Your task to perform on an android device: Open the stopwatch Image 0: 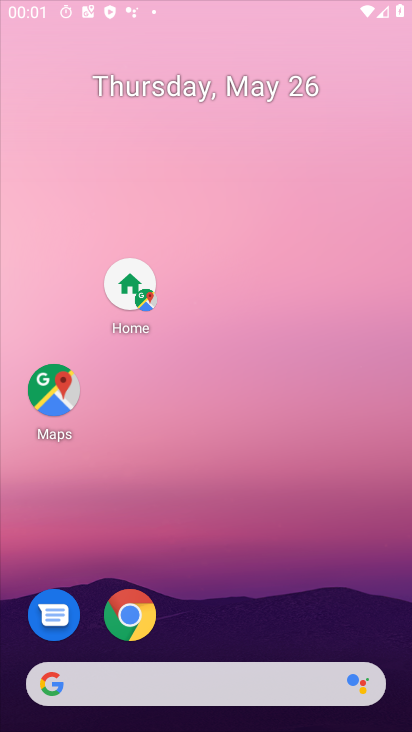
Step 0: press home button
Your task to perform on an android device: Open the stopwatch Image 1: 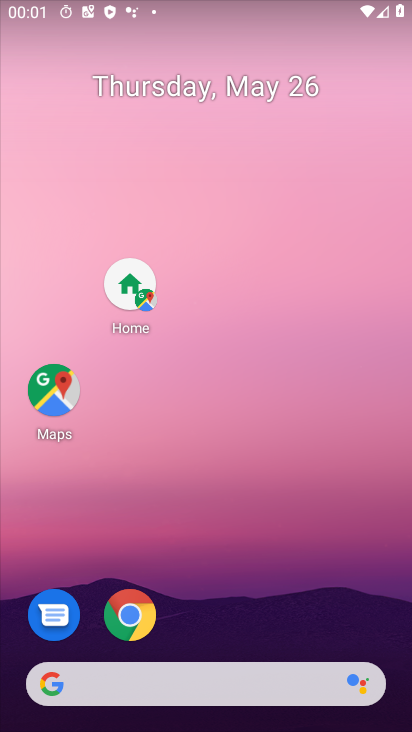
Step 1: drag from (293, 627) to (248, 149)
Your task to perform on an android device: Open the stopwatch Image 2: 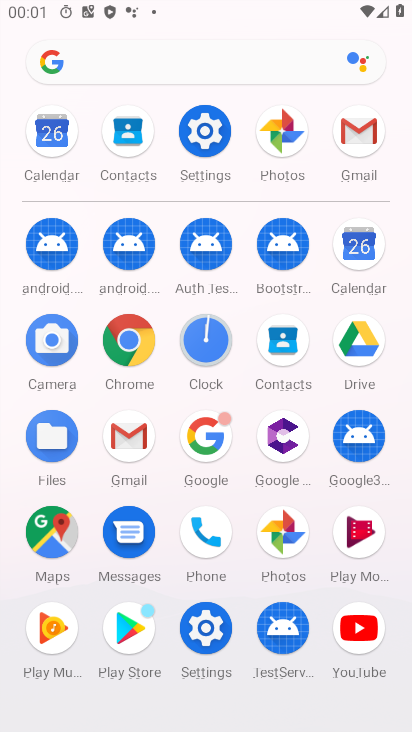
Step 2: click (211, 352)
Your task to perform on an android device: Open the stopwatch Image 3: 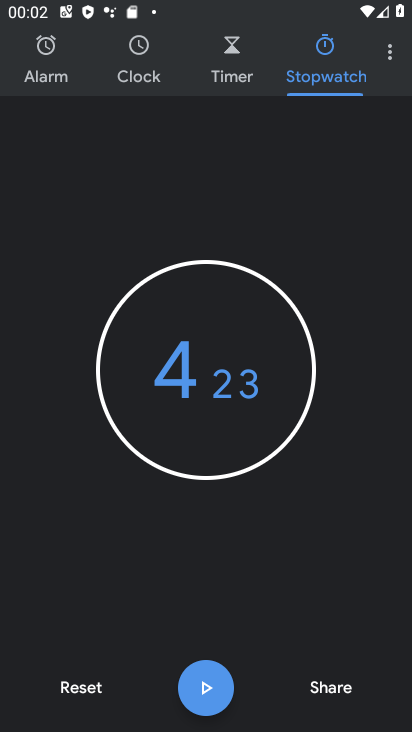
Step 3: click (324, 49)
Your task to perform on an android device: Open the stopwatch Image 4: 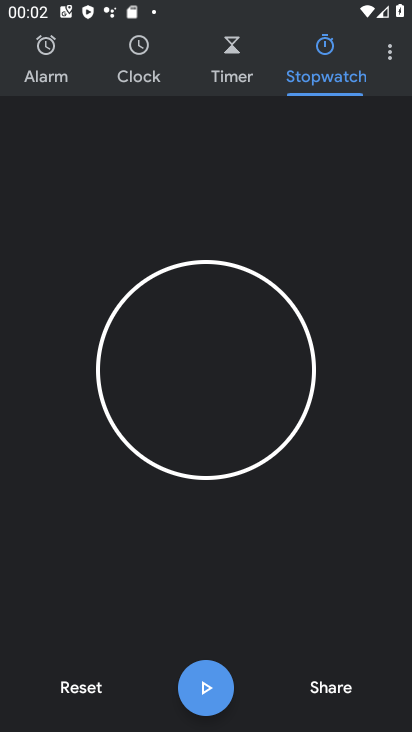
Step 4: task complete